Your task to perform on an android device: open app "VLC for Android" (install if not already installed) Image 0: 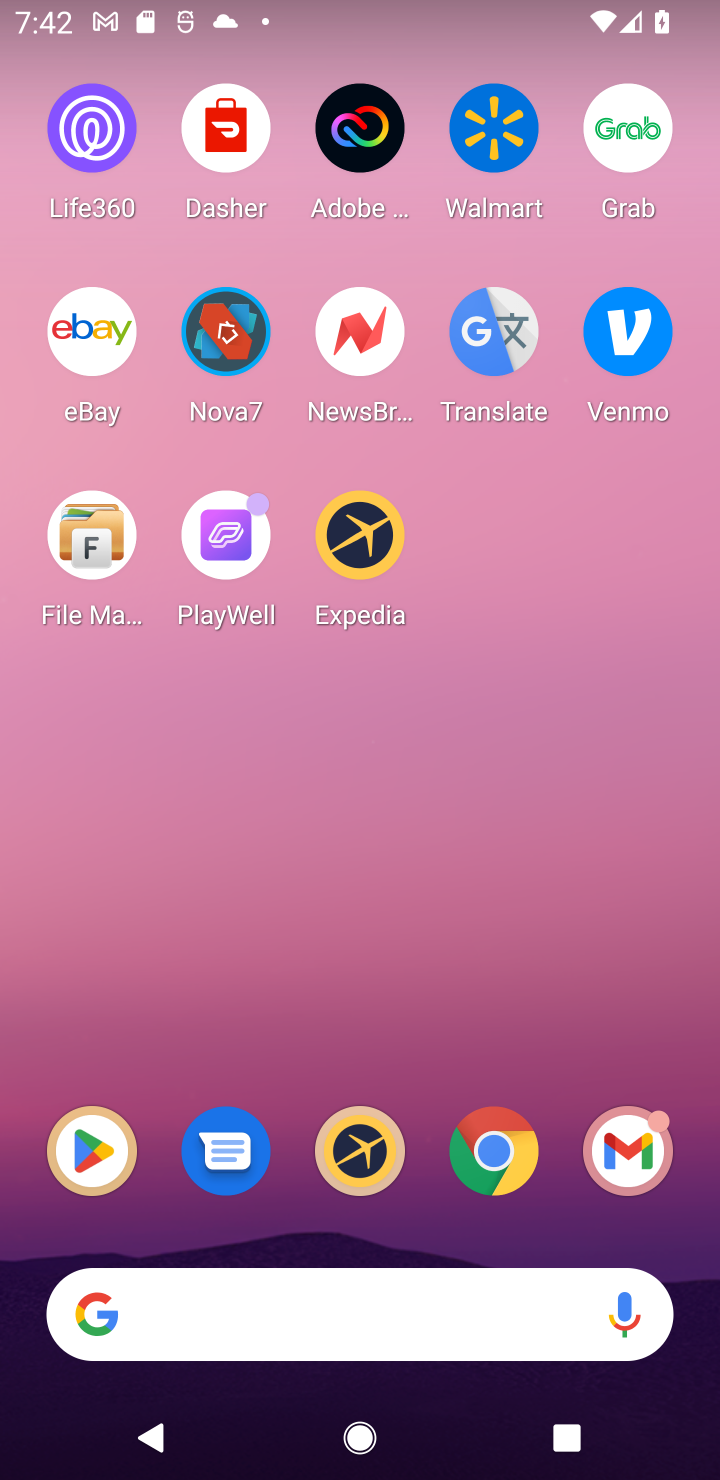
Step 0: click (88, 1141)
Your task to perform on an android device: open app "VLC for Android" (install if not already installed) Image 1: 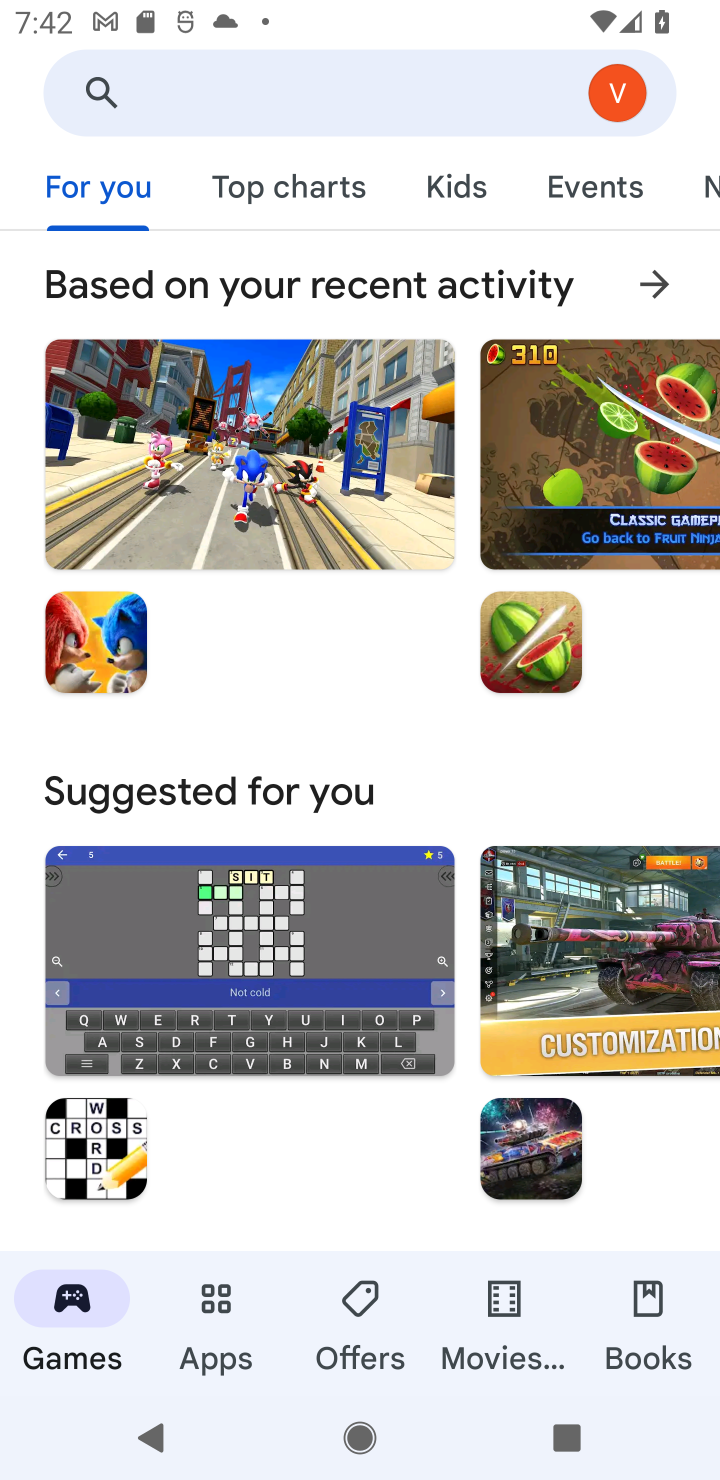
Step 1: click (469, 112)
Your task to perform on an android device: open app "VLC for Android" (install if not already installed) Image 2: 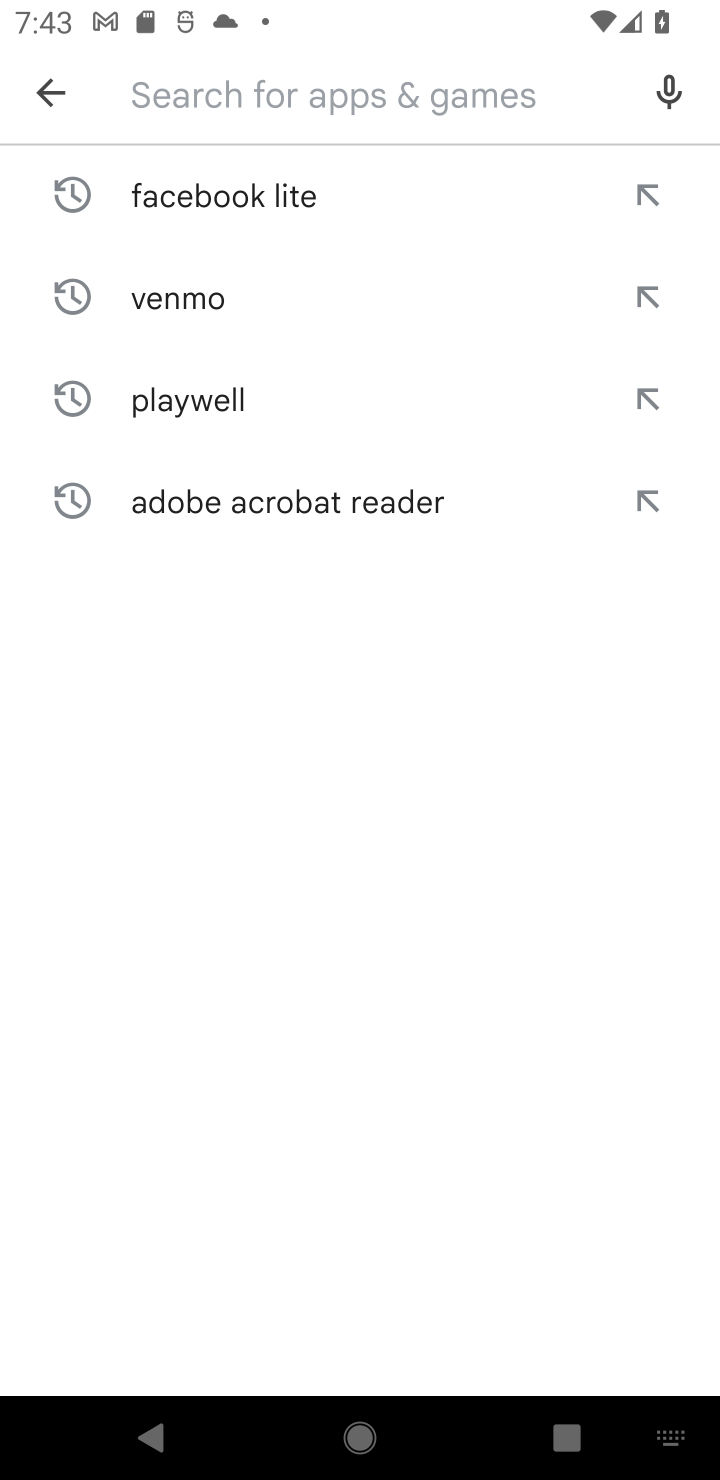
Step 2: type "VLC for Android"
Your task to perform on an android device: open app "VLC for Android" (install if not already installed) Image 3: 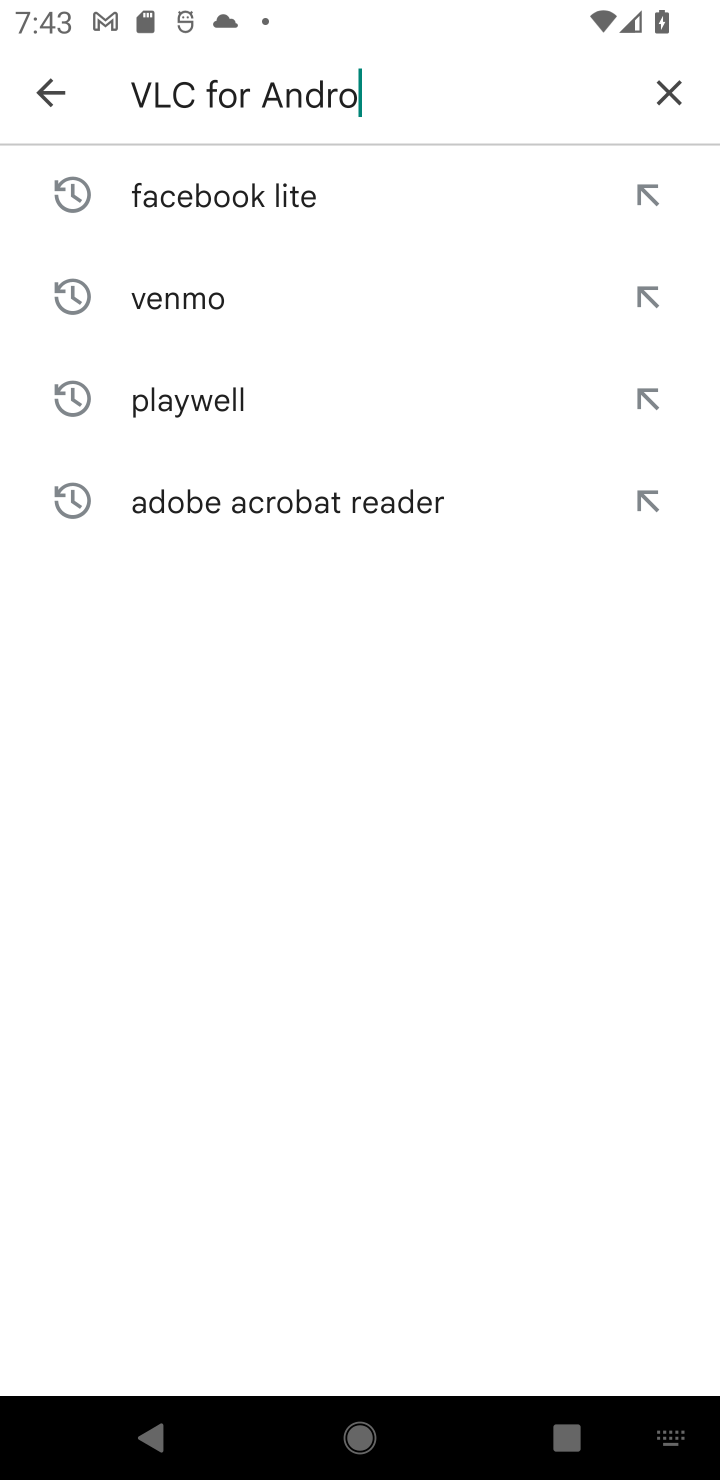
Step 3: type ""
Your task to perform on an android device: open app "VLC for Android" (install if not already installed) Image 4: 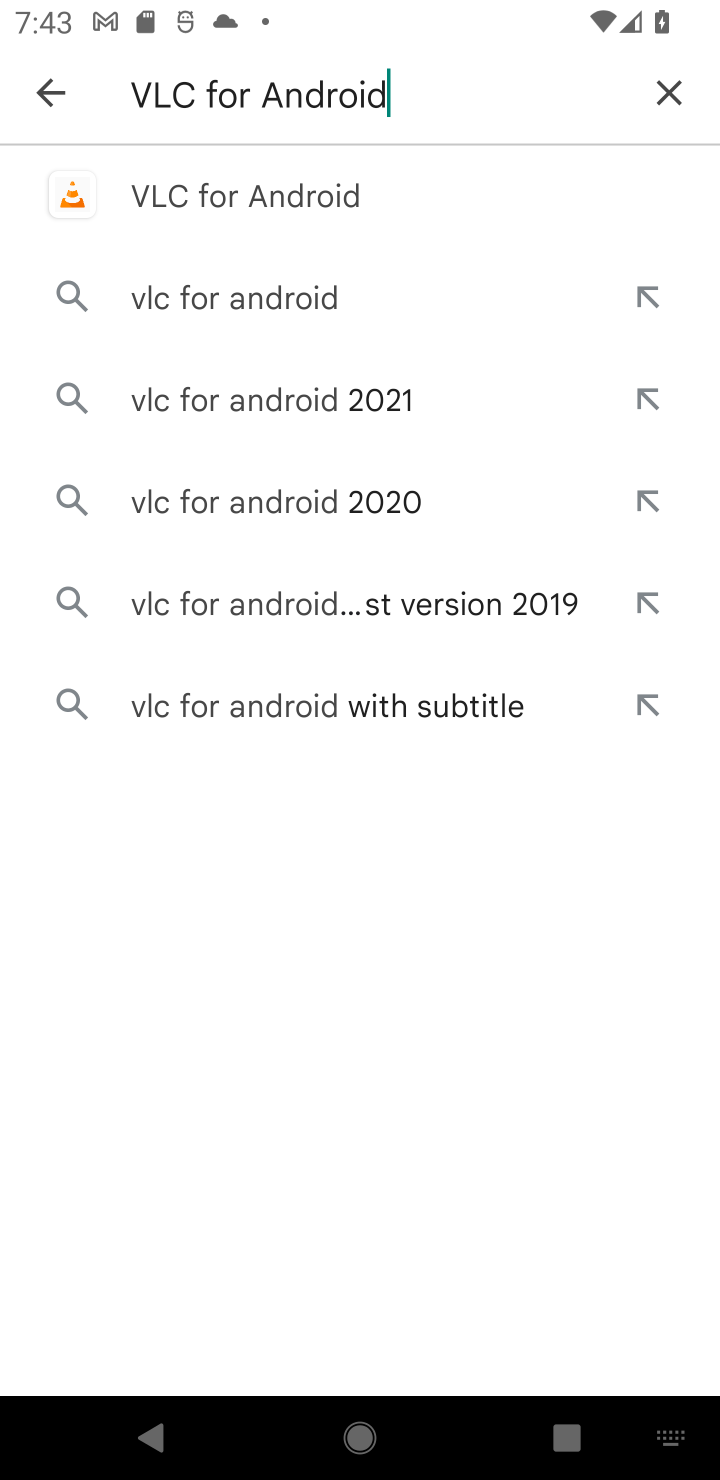
Step 4: click (390, 202)
Your task to perform on an android device: open app "VLC for Android" (install if not already installed) Image 5: 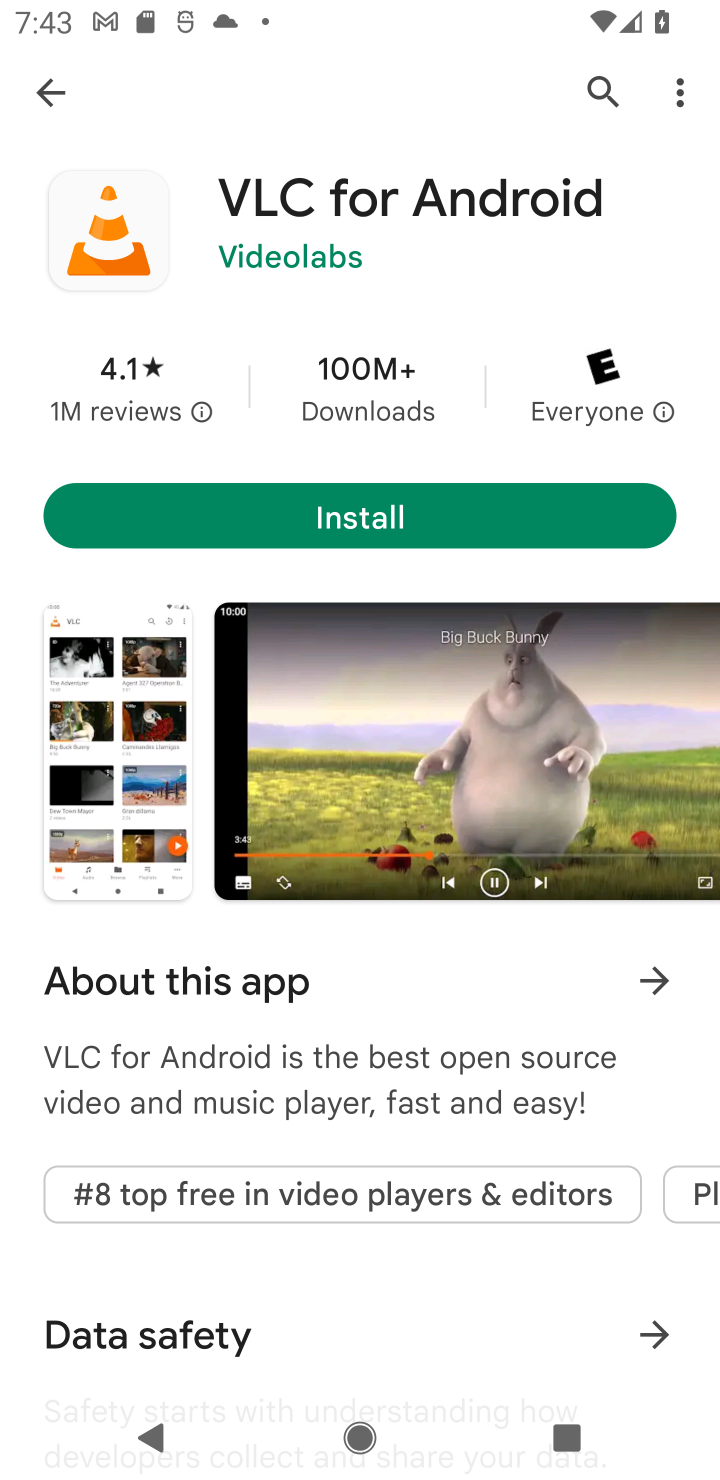
Step 5: click (469, 533)
Your task to perform on an android device: open app "VLC for Android" (install if not already installed) Image 6: 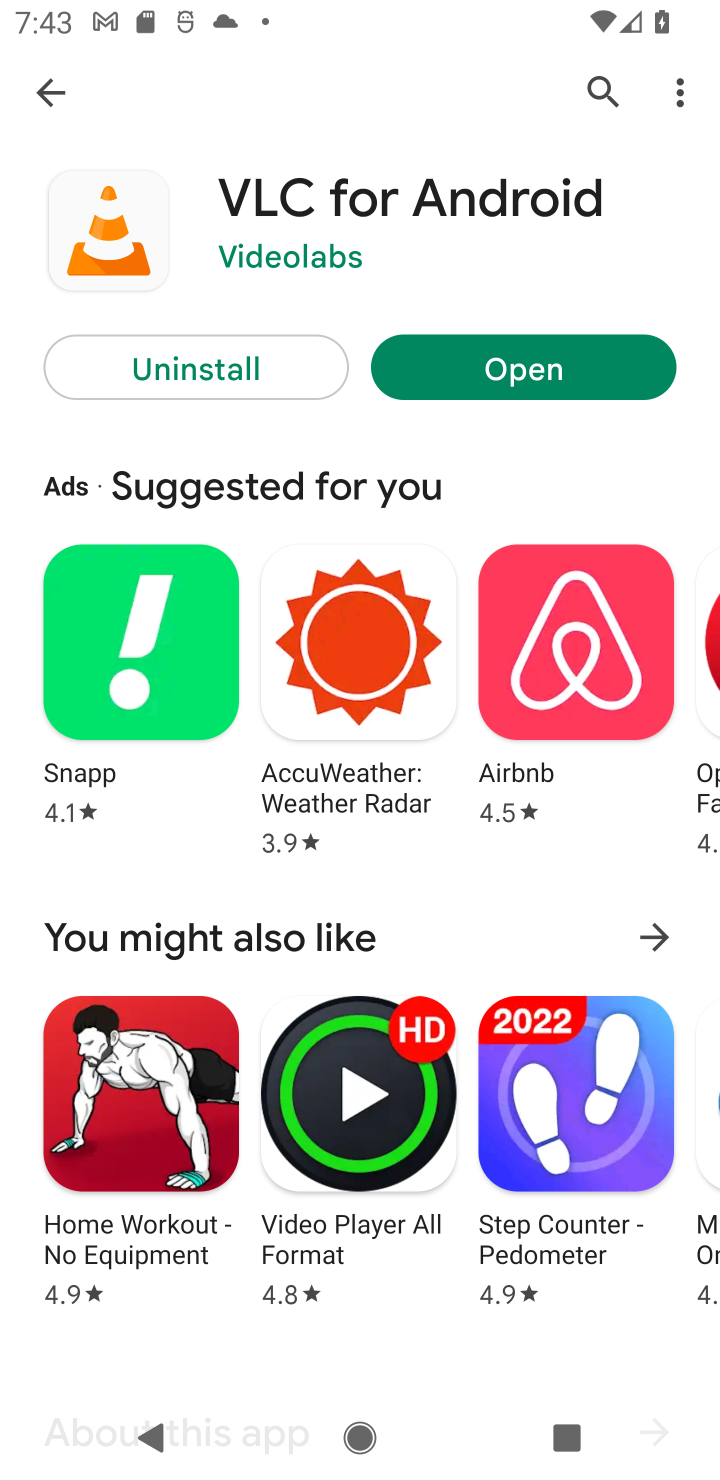
Step 6: click (515, 378)
Your task to perform on an android device: open app "VLC for Android" (install if not already installed) Image 7: 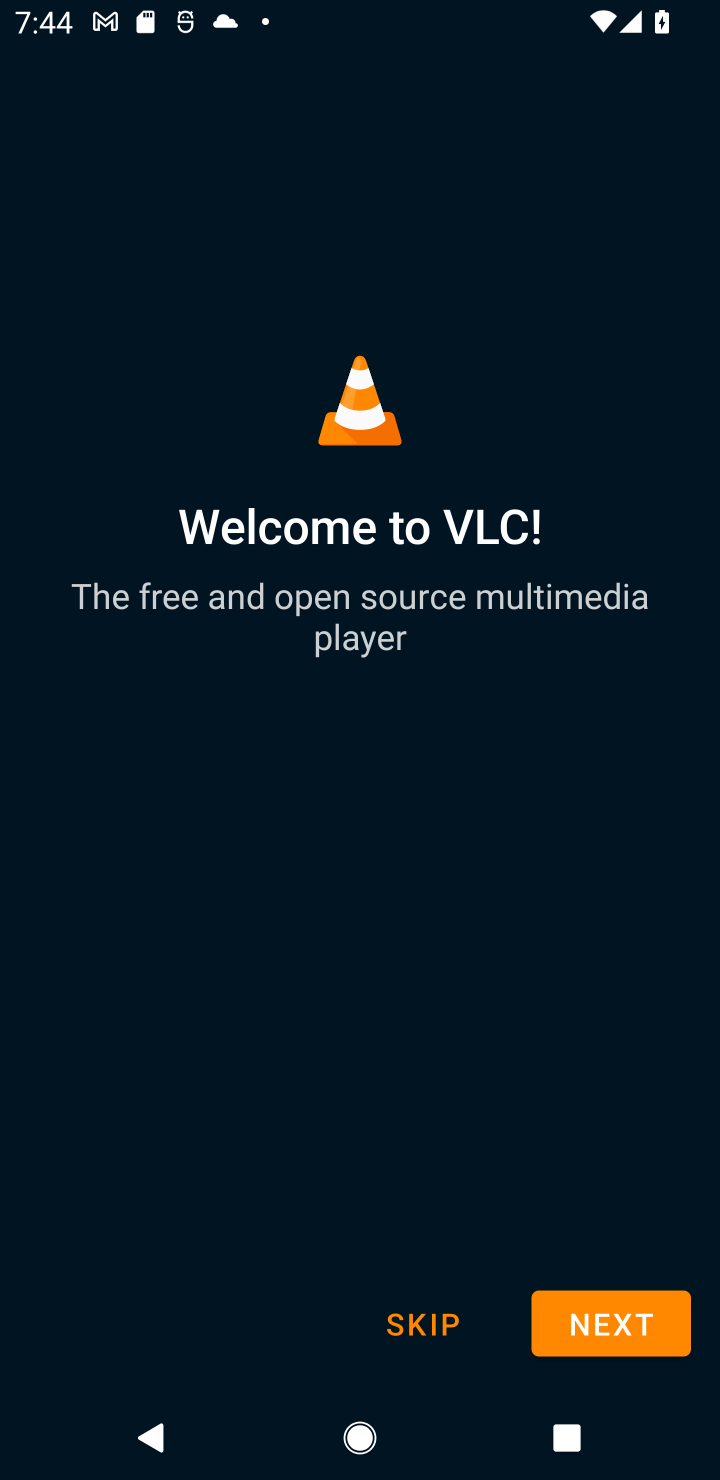
Step 7: task complete